Your task to perform on an android device: set default search engine in the chrome app Image 0: 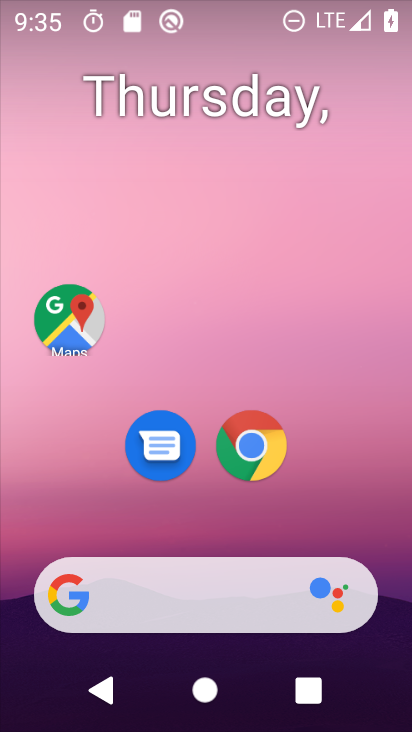
Step 0: drag from (193, 524) to (226, 174)
Your task to perform on an android device: set default search engine in the chrome app Image 1: 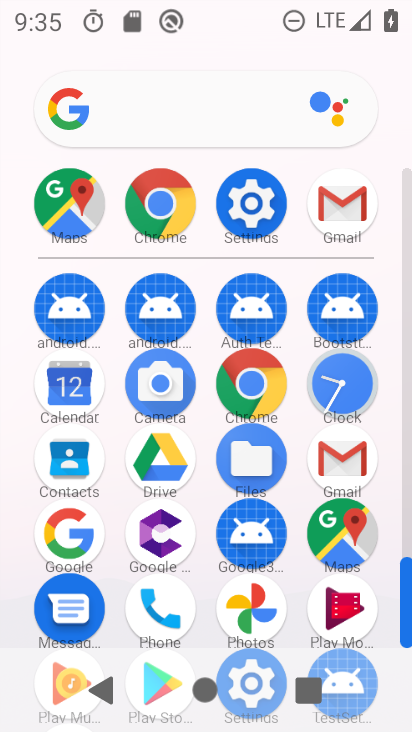
Step 1: click (250, 380)
Your task to perform on an android device: set default search engine in the chrome app Image 2: 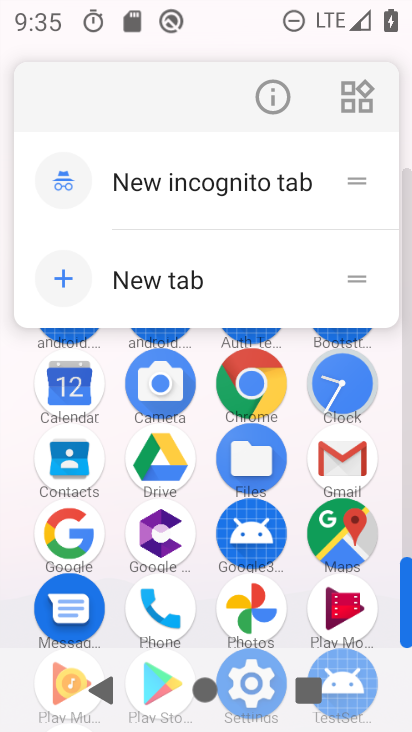
Step 2: click (270, 91)
Your task to perform on an android device: set default search engine in the chrome app Image 3: 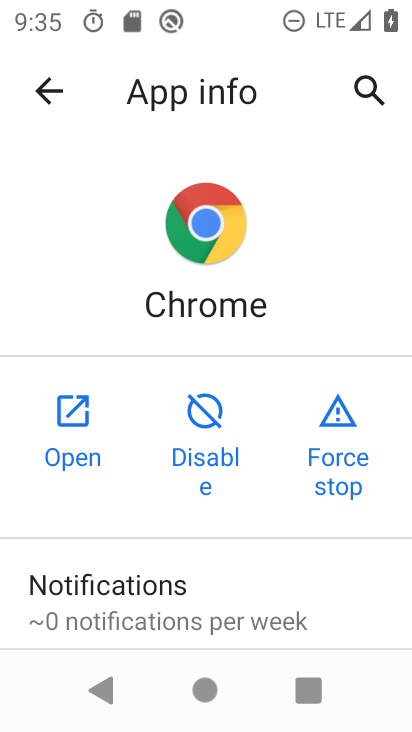
Step 3: click (76, 435)
Your task to perform on an android device: set default search engine in the chrome app Image 4: 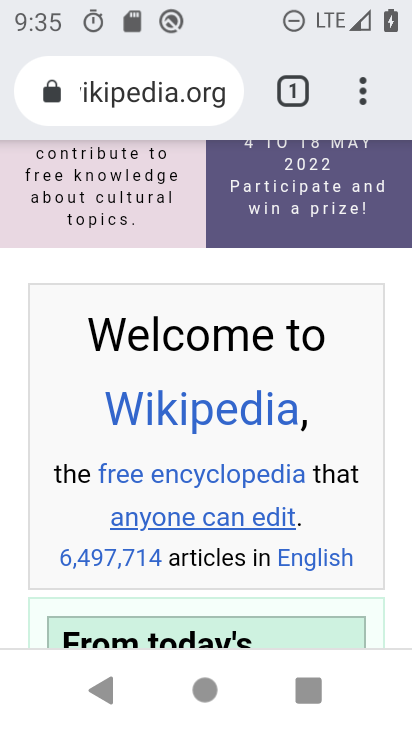
Step 4: drag from (371, 105) to (110, 473)
Your task to perform on an android device: set default search engine in the chrome app Image 5: 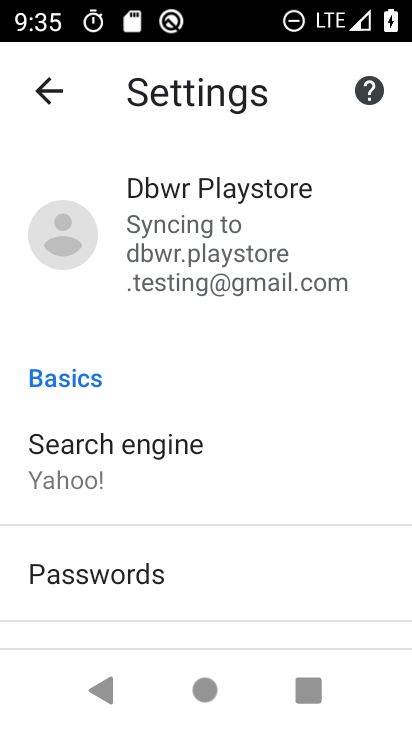
Step 5: drag from (182, 565) to (245, 251)
Your task to perform on an android device: set default search engine in the chrome app Image 6: 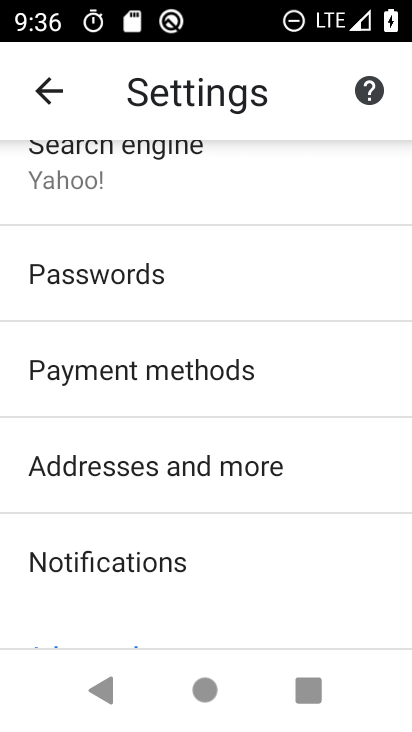
Step 6: drag from (184, 570) to (259, 197)
Your task to perform on an android device: set default search engine in the chrome app Image 7: 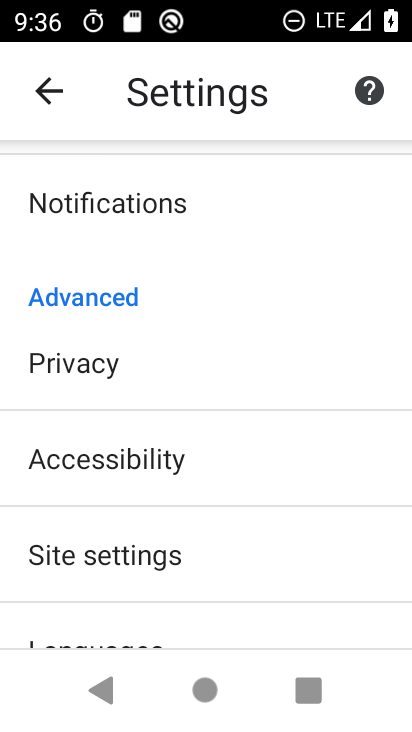
Step 7: drag from (182, 323) to (300, 725)
Your task to perform on an android device: set default search engine in the chrome app Image 8: 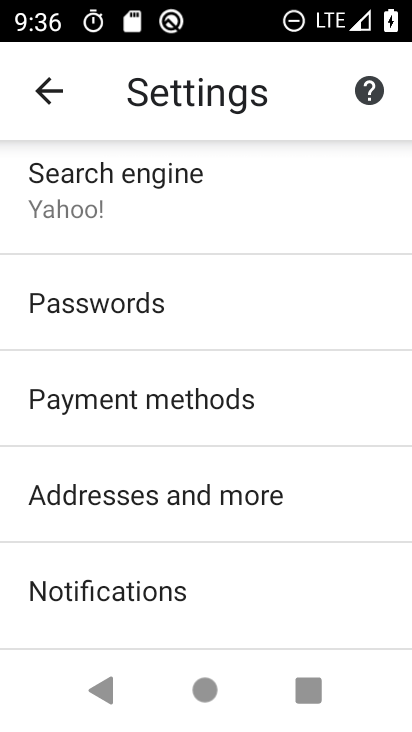
Step 8: click (126, 212)
Your task to perform on an android device: set default search engine in the chrome app Image 9: 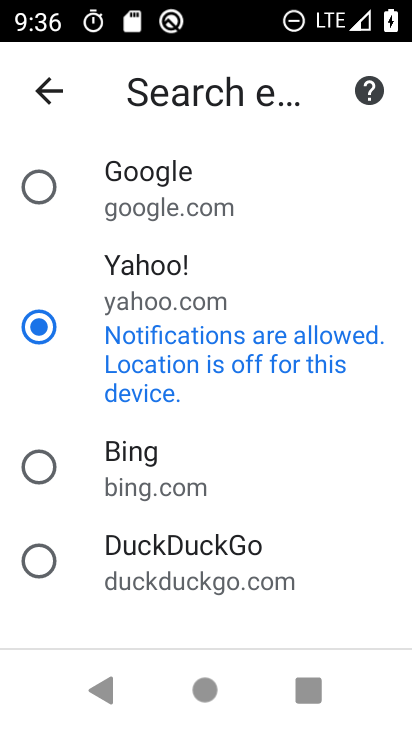
Step 9: click (150, 188)
Your task to perform on an android device: set default search engine in the chrome app Image 10: 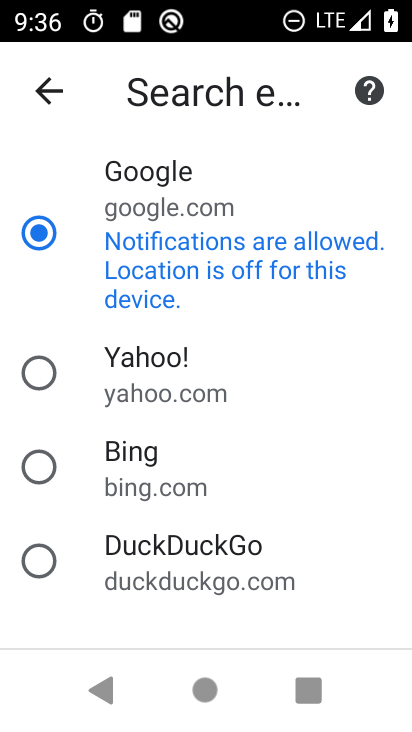
Step 10: task complete